Your task to perform on an android device: check google app version Image 0: 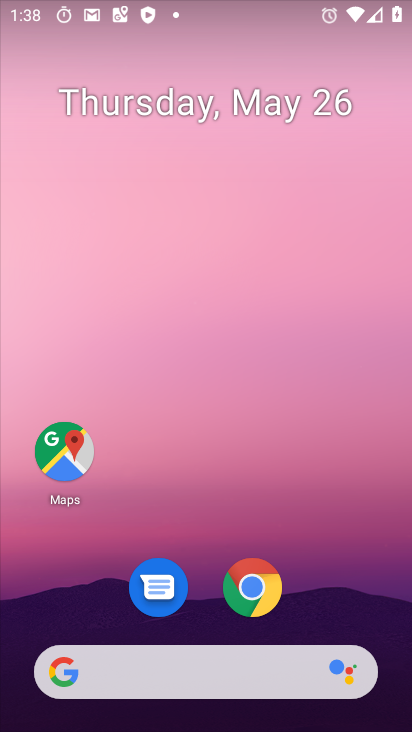
Step 0: drag from (260, 701) to (172, 219)
Your task to perform on an android device: check google app version Image 1: 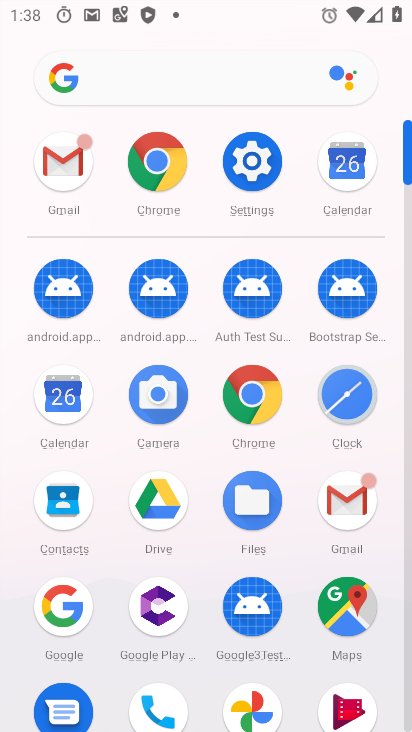
Step 1: click (165, 178)
Your task to perform on an android device: check google app version Image 2: 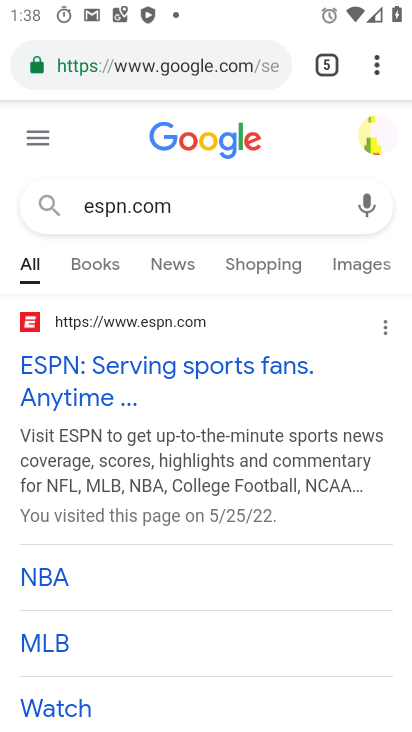
Step 2: click (373, 77)
Your task to perform on an android device: check google app version Image 3: 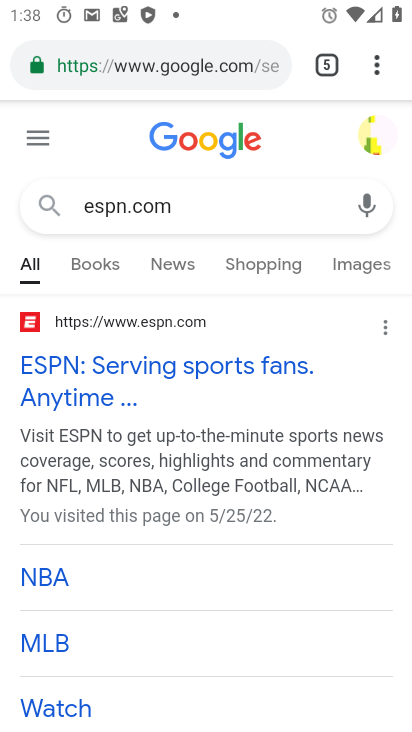
Step 3: click (363, 70)
Your task to perform on an android device: check google app version Image 4: 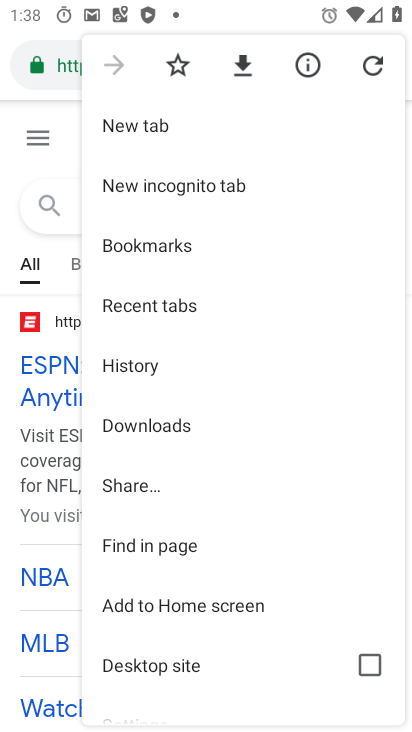
Step 4: drag from (156, 600) to (177, 375)
Your task to perform on an android device: check google app version Image 5: 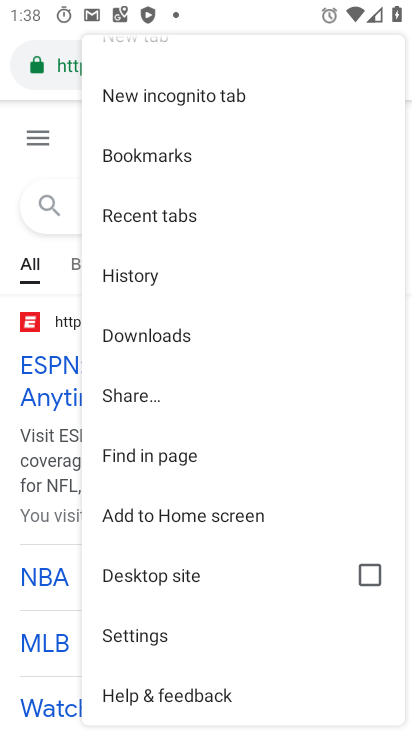
Step 5: click (170, 624)
Your task to perform on an android device: check google app version Image 6: 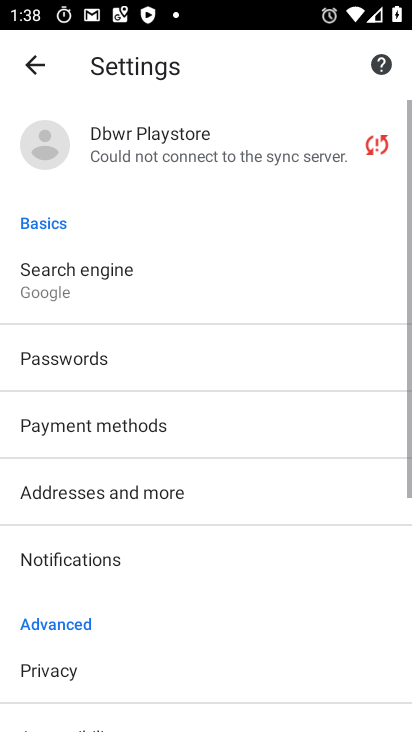
Step 6: drag from (107, 574) to (54, 91)
Your task to perform on an android device: check google app version Image 7: 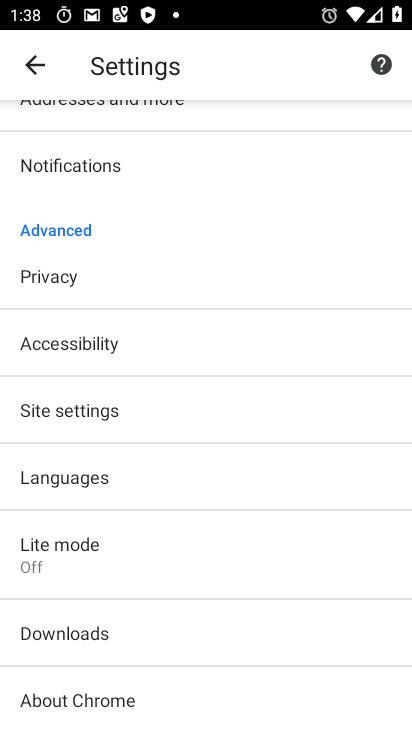
Step 7: click (49, 699)
Your task to perform on an android device: check google app version Image 8: 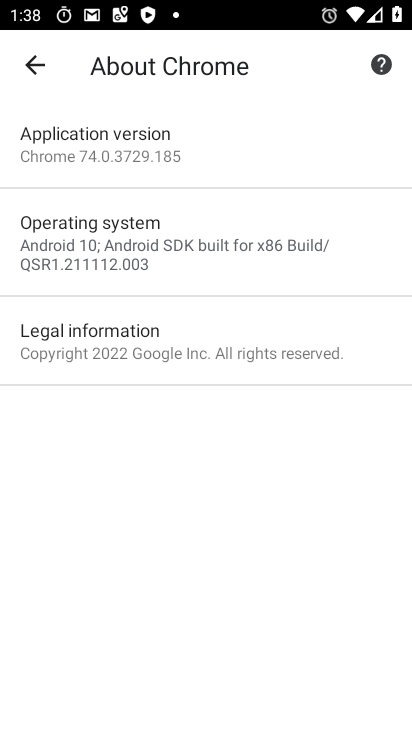
Step 8: click (111, 167)
Your task to perform on an android device: check google app version Image 9: 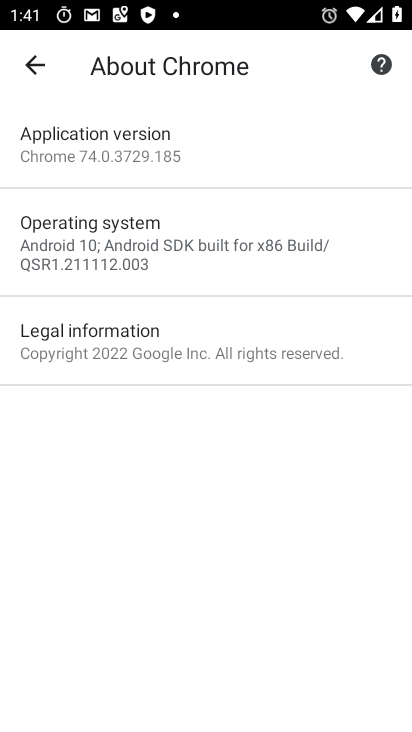
Step 9: task complete